Your task to perform on an android device: check data usage Image 0: 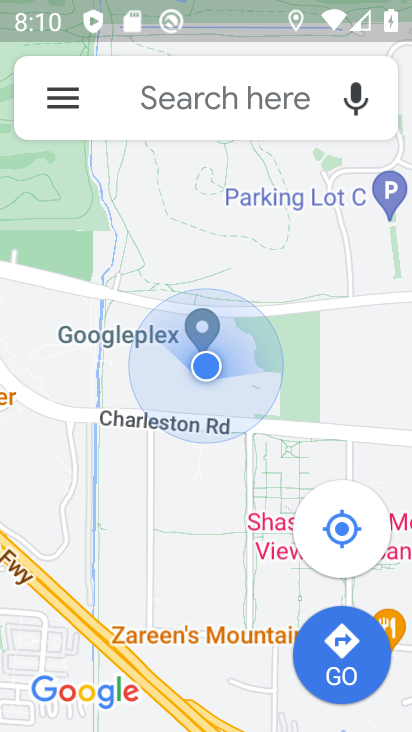
Step 0: press home button
Your task to perform on an android device: check data usage Image 1: 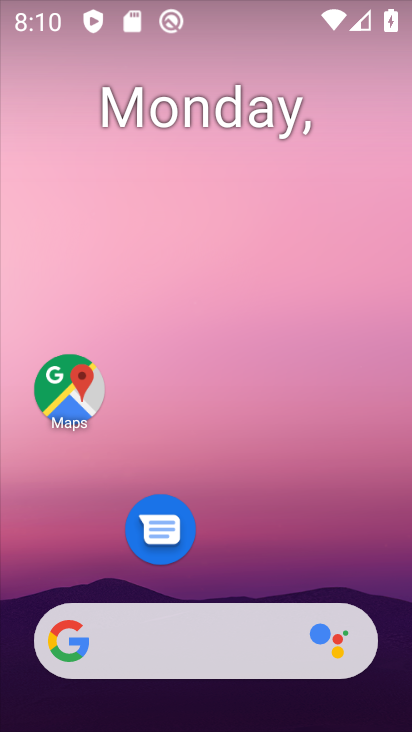
Step 1: drag from (236, 583) to (247, 125)
Your task to perform on an android device: check data usage Image 2: 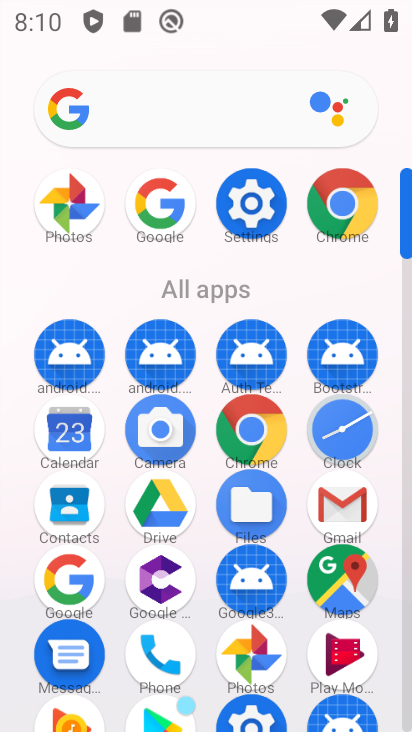
Step 2: click (245, 203)
Your task to perform on an android device: check data usage Image 3: 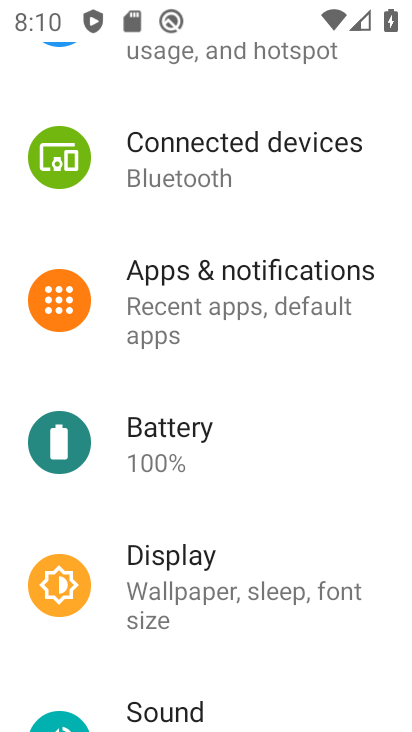
Step 3: drag from (250, 197) to (238, 605)
Your task to perform on an android device: check data usage Image 4: 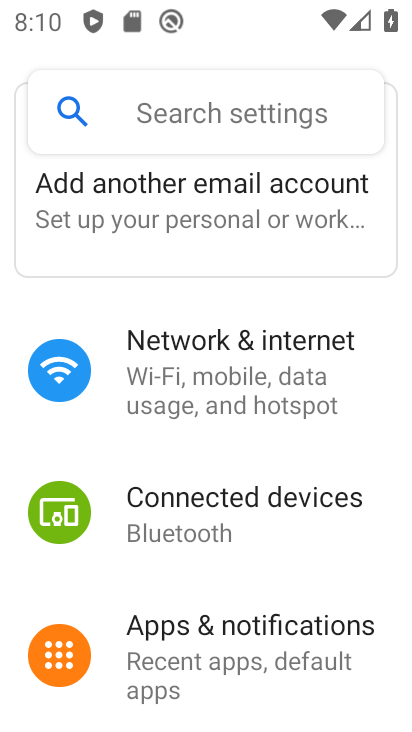
Step 4: click (216, 361)
Your task to perform on an android device: check data usage Image 5: 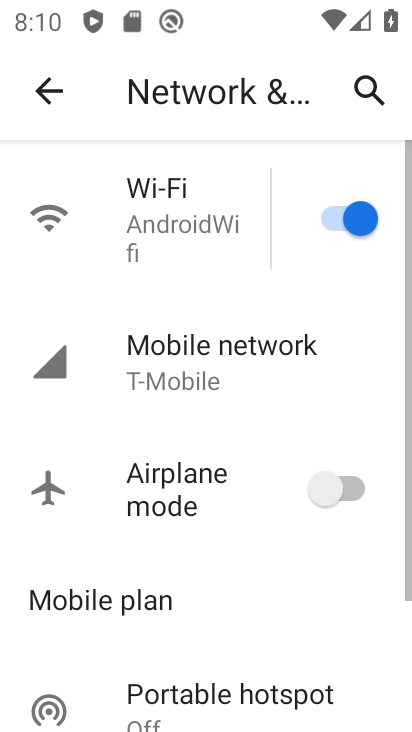
Step 5: click (216, 361)
Your task to perform on an android device: check data usage Image 6: 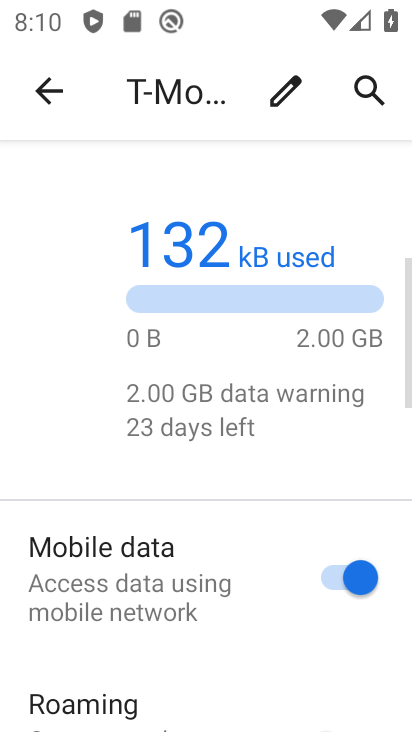
Step 6: drag from (191, 645) to (234, 292)
Your task to perform on an android device: check data usage Image 7: 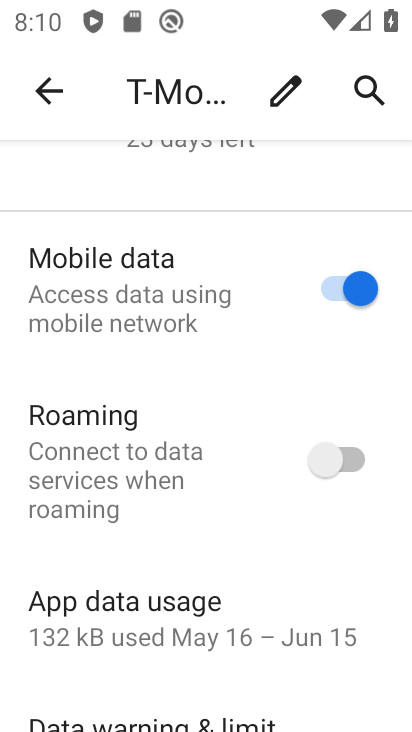
Step 7: click (221, 609)
Your task to perform on an android device: check data usage Image 8: 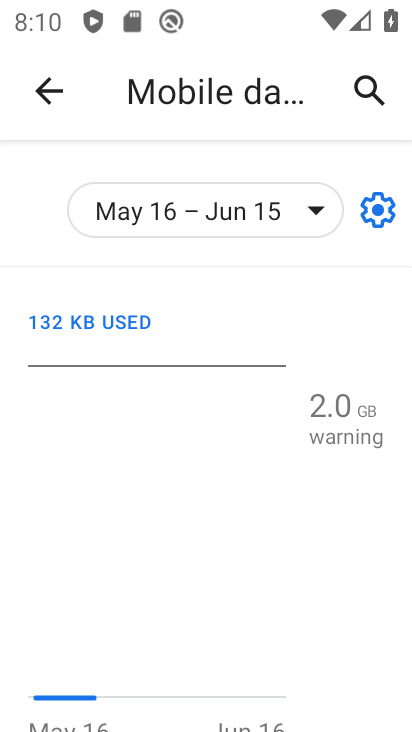
Step 8: task complete